Your task to perform on an android device: see sites visited before in the chrome app Image 0: 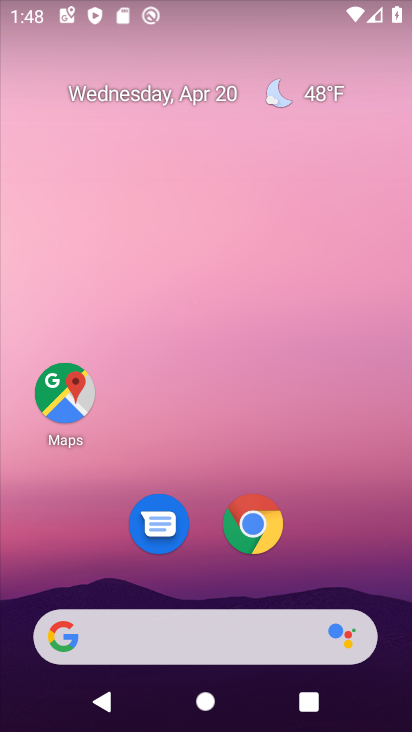
Step 0: click (254, 521)
Your task to perform on an android device: see sites visited before in the chrome app Image 1: 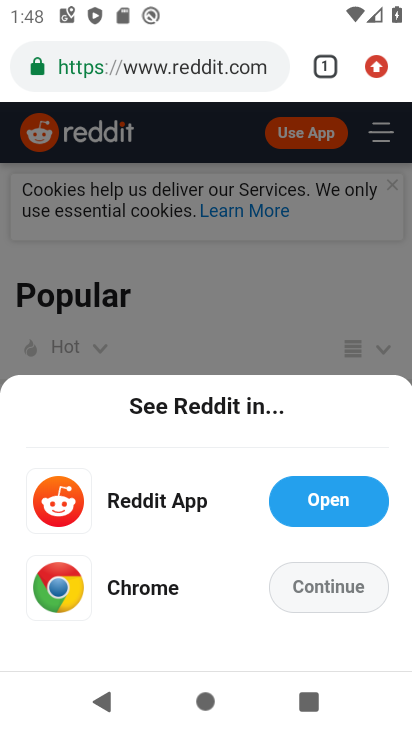
Step 1: click (373, 66)
Your task to perform on an android device: see sites visited before in the chrome app Image 2: 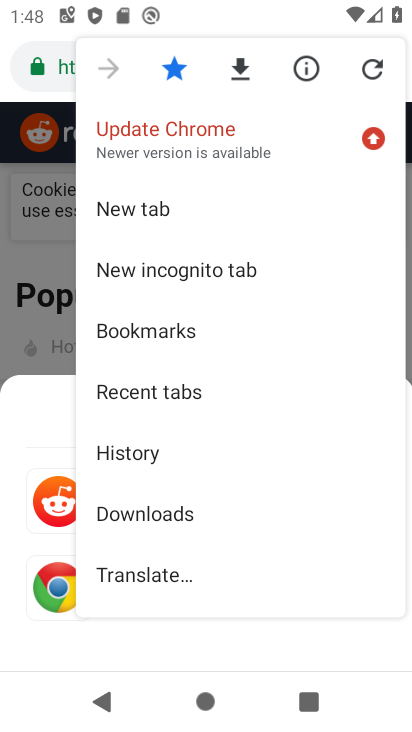
Step 2: click (139, 380)
Your task to perform on an android device: see sites visited before in the chrome app Image 3: 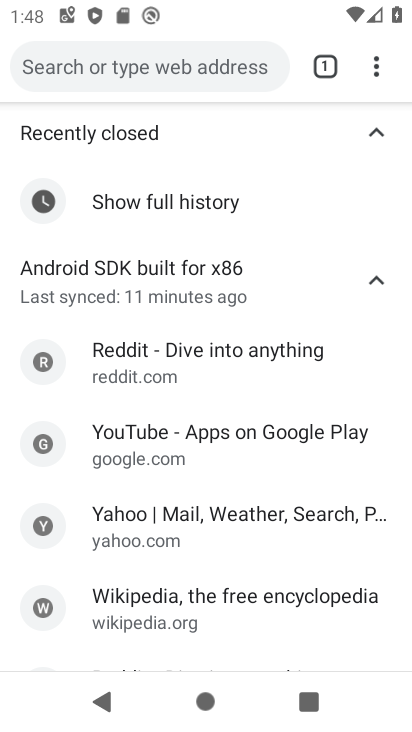
Step 3: task complete